Your task to perform on an android device: add a label to a message in the gmail app Image 0: 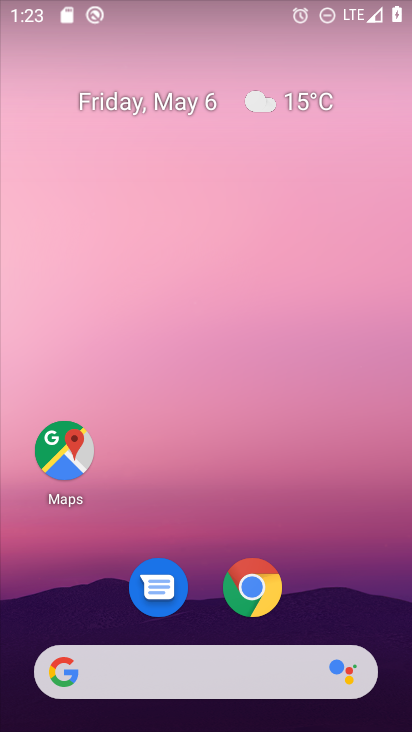
Step 0: drag from (331, 584) to (266, 74)
Your task to perform on an android device: add a label to a message in the gmail app Image 1: 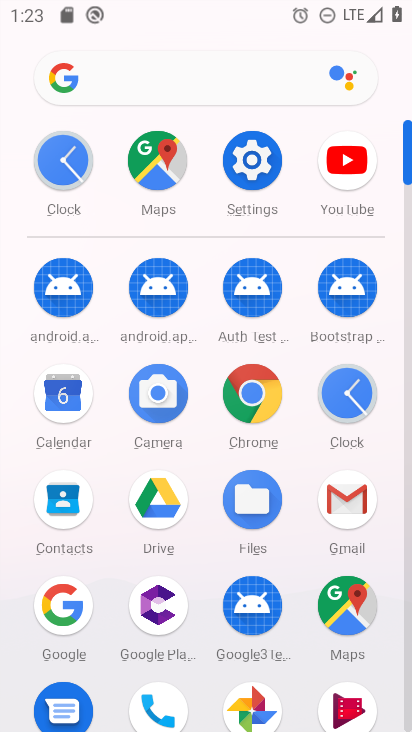
Step 1: click (354, 493)
Your task to perform on an android device: add a label to a message in the gmail app Image 2: 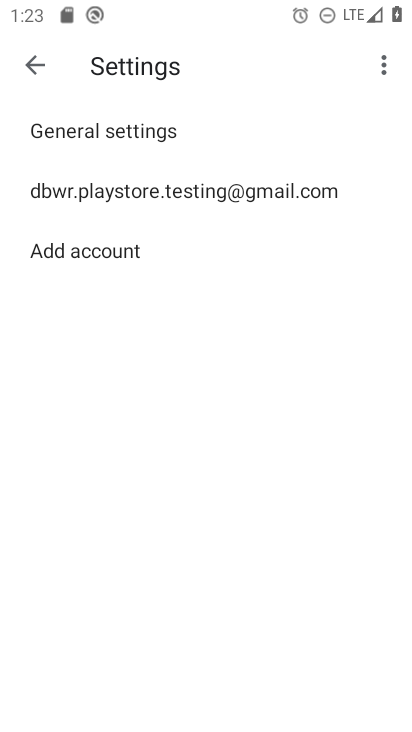
Step 2: click (219, 202)
Your task to perform on an android device: add a label to a message in the gmail app Image 3: 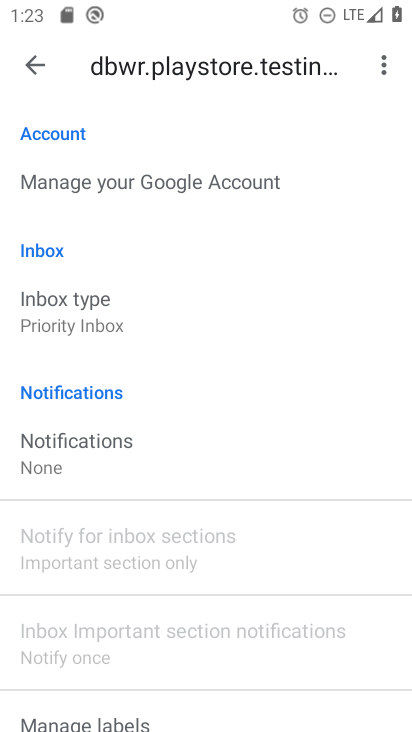
Step 3: click (41, 62)
Your task to perform on an android device: add a label to a message in the gmail app Image 4: 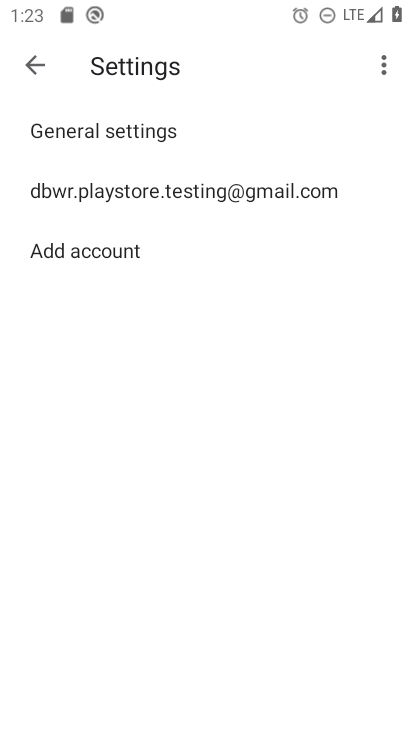
Step 4: click (37, 68)
Your task to perform on an android device: add a label to a message in the gmail app Image 5: 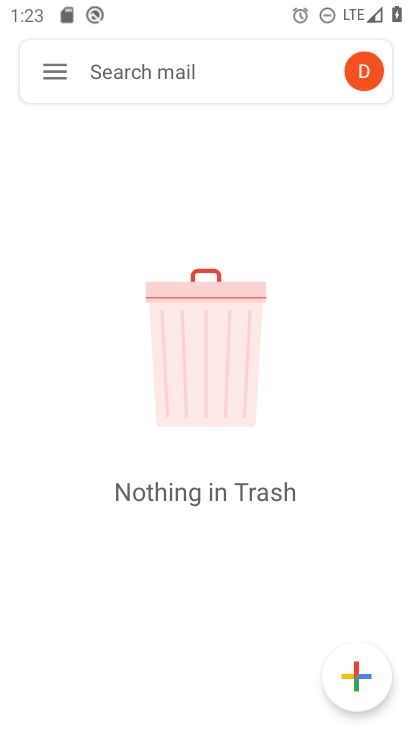
Step 5: click (59, 70)
Your task to perform on an android device: add a label to a message in the gmail app Image 6: 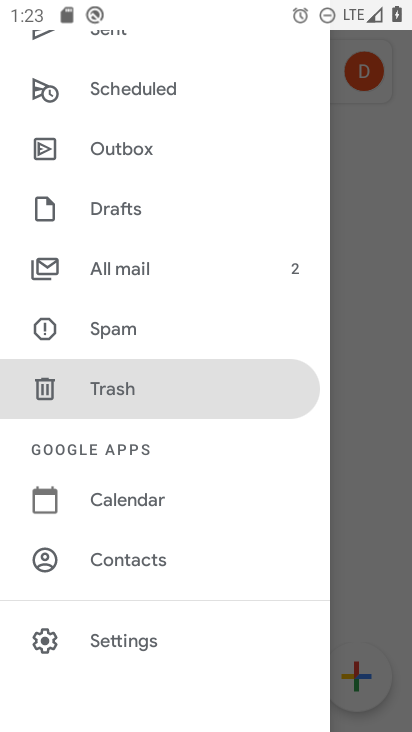
Step 6: click (160, 245)
Your task to perform on an android device: add a label to a message in the gmail app Image 7: 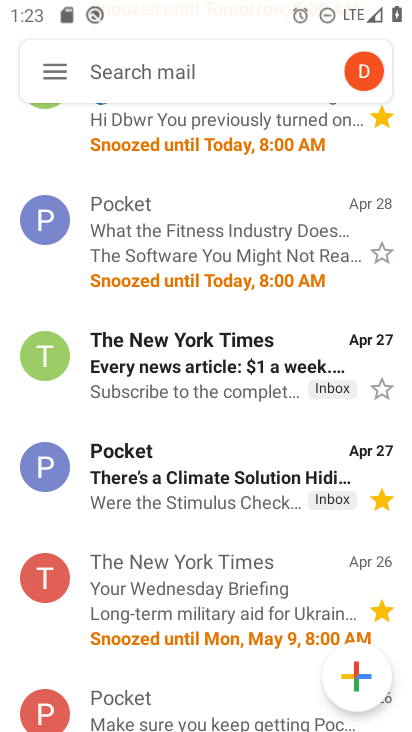
Step 7: drag from (208, 591) to (241, 226)
Your task to perform on an android device: add a label to a message in the gmail app Image 8: 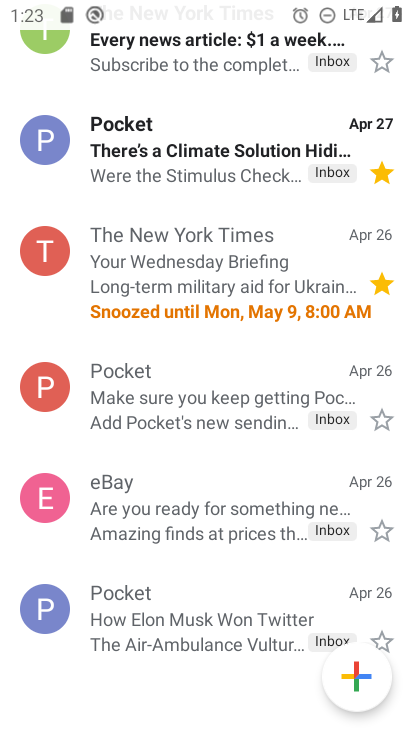
Step 8: drag from (236, 549) to (212, 189)
Your task to perform on an android device: add a label to a message in the gmail app Image 9: 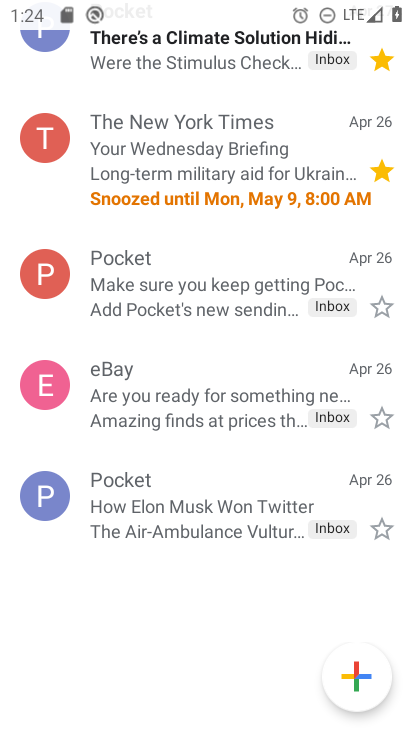
Step 9: drag from (225, 196) to (214, 649)
Your task to perform on an android device: add a label to a message in the gmail app Image 10: 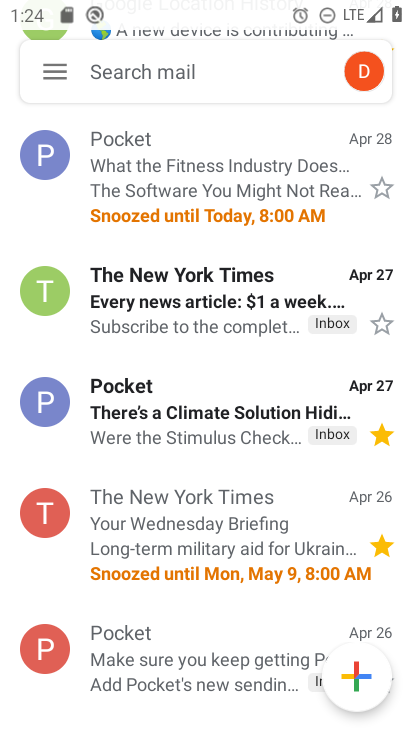
Step 10: drag from (228, 273) to (190, 597)
Your task to perform on an android device: add a label to a message in the gmail app Image 11: 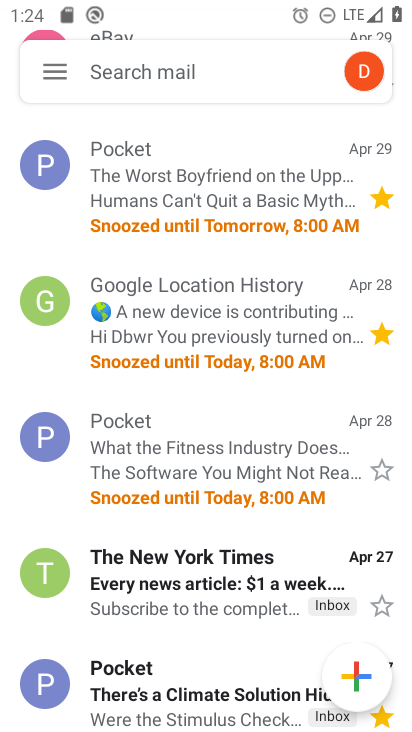
Step 11: drag from (207, 343) to (171, 651)
Your task to perform on an android device: add a label to a message in the gmail app Image 12: 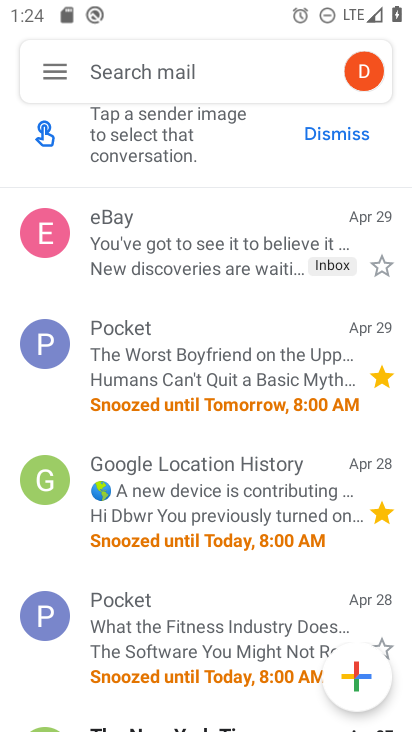
Step 12: click (197, 363)
Your task to perform on an android device: add a label to a message in the gmail app Image 13: 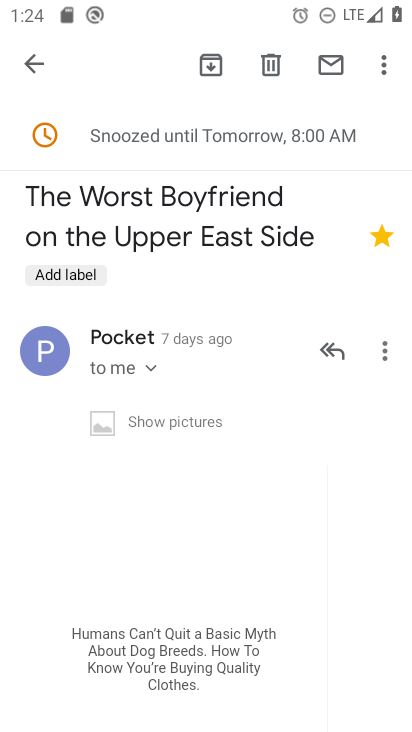
Step 13: click (71, 260)
Your task to perform on an android device: add a label to a message in the gmail app Image 14: 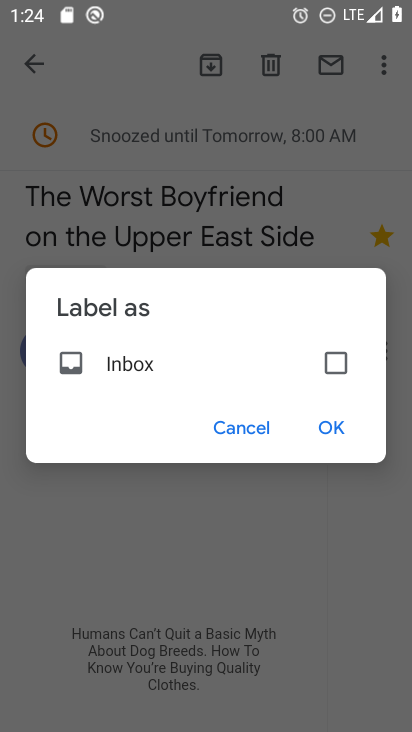
Step 14: click (334, 364)
Your task to perform on an android device: add a label to a message in the gmail app Image 15: 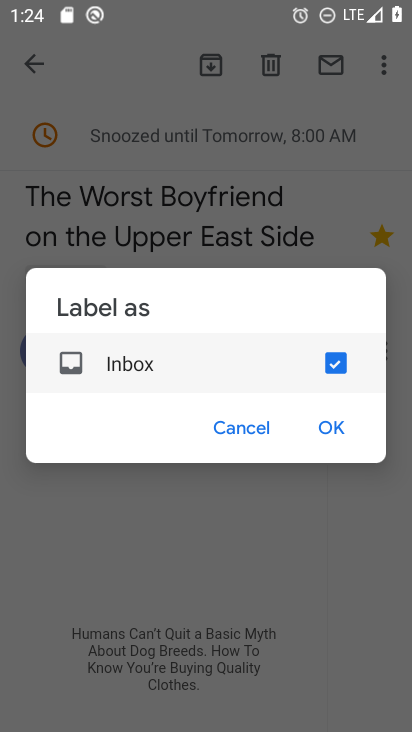
Step 15: click (339, 431)
Your task to perform on an android device: add a label to a message in the gmail app Image 16: 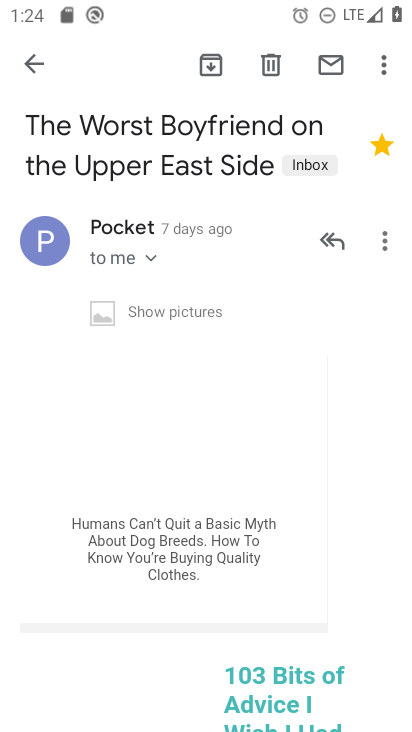
Step 16: task complete